Your task to perform on an android device: Search for sushi restaurants on Maps Image 0: 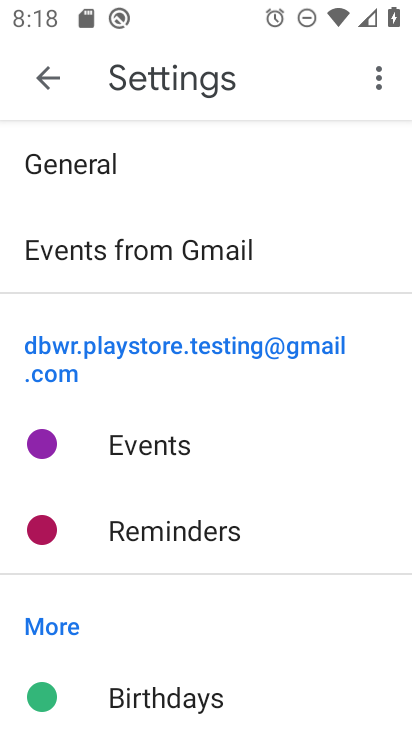
Step 0: press home button
Your task to perform on an android device: Search for sushi restaurants on Maps Image 1: 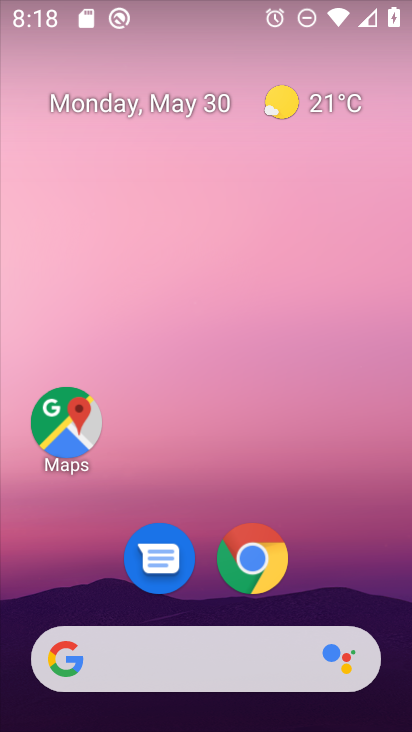
Step 1: click (67, 424)
Your task to perform on an android device: Search for sushi restaurants on Maps Image 2: 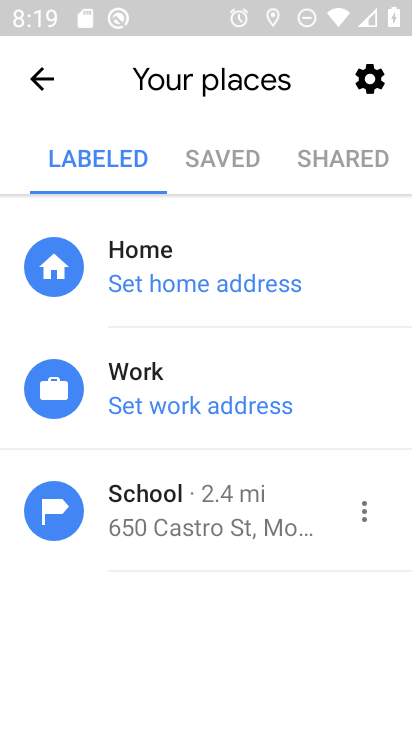
Step 2: click (39, 68)
Your task to perform on an android device: Search for sushi restaurants on Maps Image 3: 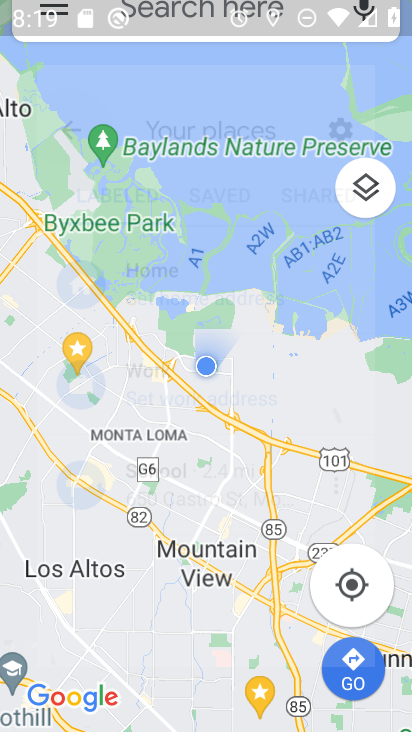
Step 3: click (40, 88)
Your task to perform on an android device: Search for sushi restaurants on Maps Image 4: 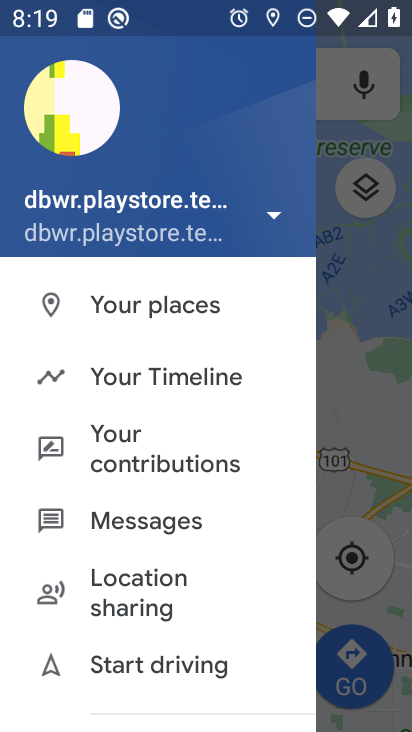
Step 4: click (358, 334)
Your task to perform on an android device: Search for sushi restaurants on Maps Image 5: 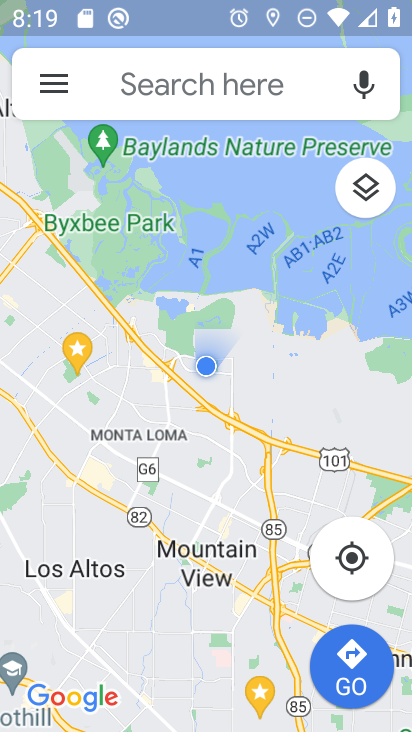
Step 5: click (183, 81)
Your task to perform on an android device: Search for sushi restaurants on Maps Image 6: 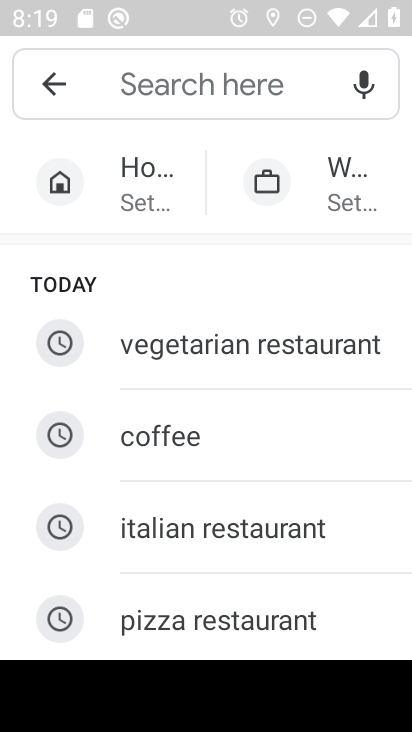
Step 6: type "pizza restaurants"
Your task to perform on an android device: Search for sushi restaurants on Maps Image 7: 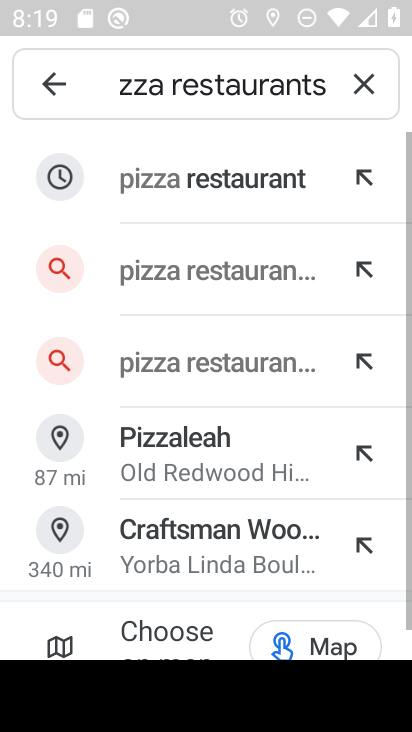
Step 7: click (222, 180)
Your task to perform on an android device: Search for sushi restaurants on Maps Image 8: 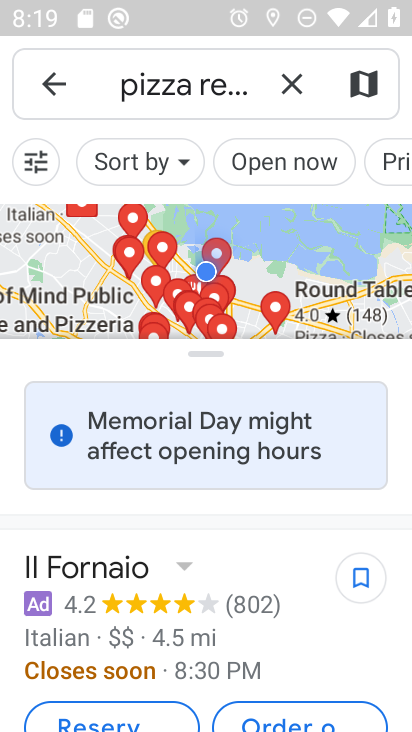
Step 8: task complete